Your task to perform on an android device: check data usage Image 0: 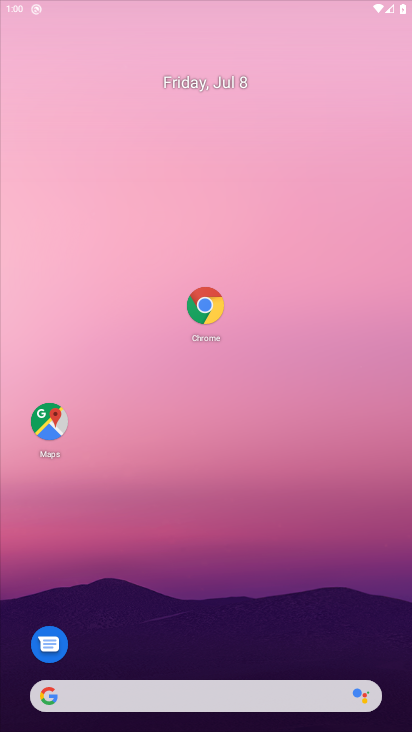
Step 0: drag from (212, 675) to (273, 240)
Your task to perform on an android device: check data usage Image 1: 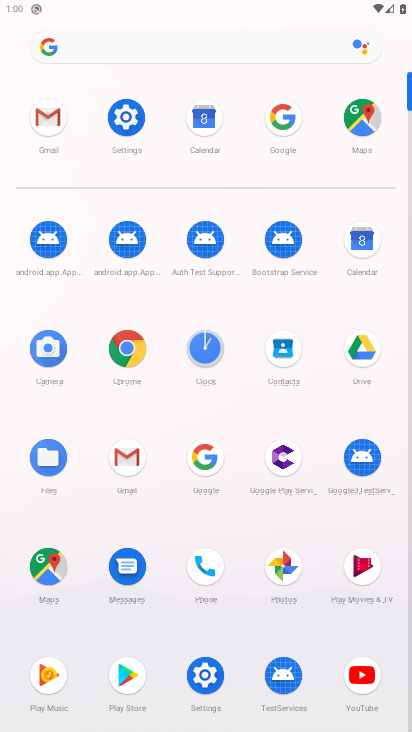
Step 1: click (127, 106)
Your task to perform on an android device: check data usage Image 2: 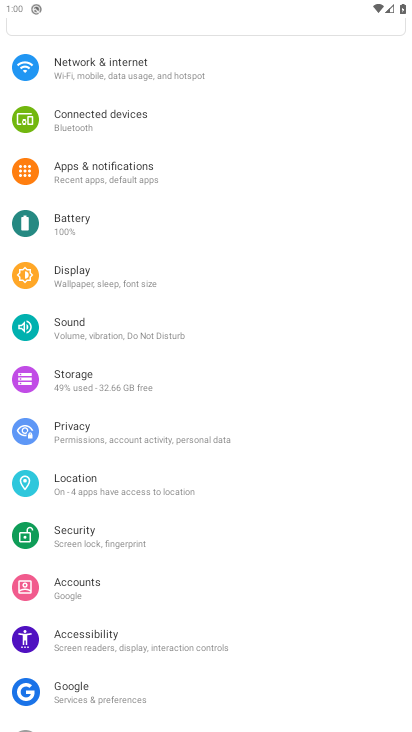
Step 2: click (105, 69)
Your task to perform on an android device: check data usage Image 3: 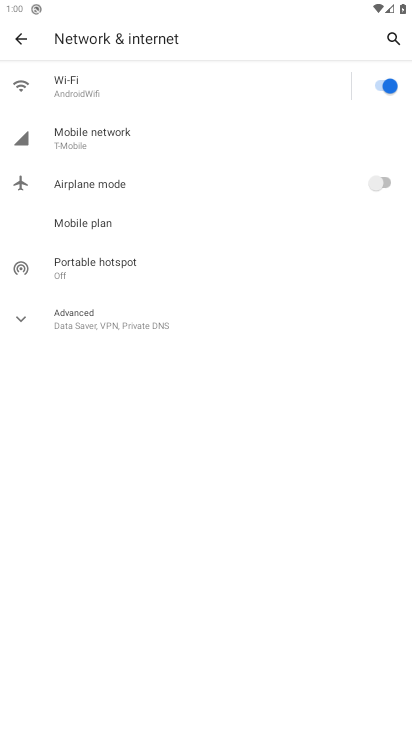
Step 3: click (73, 140)
Your task to perform on an android device: check data usage Image 4: 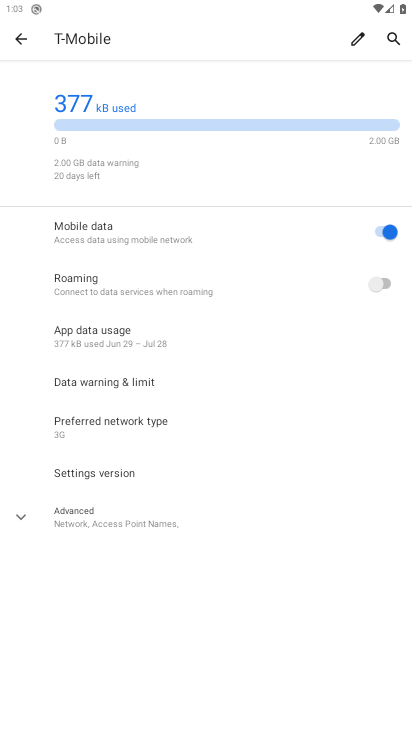
Step 4: task complete